Your task to perform on an android device: check storage Image 0: 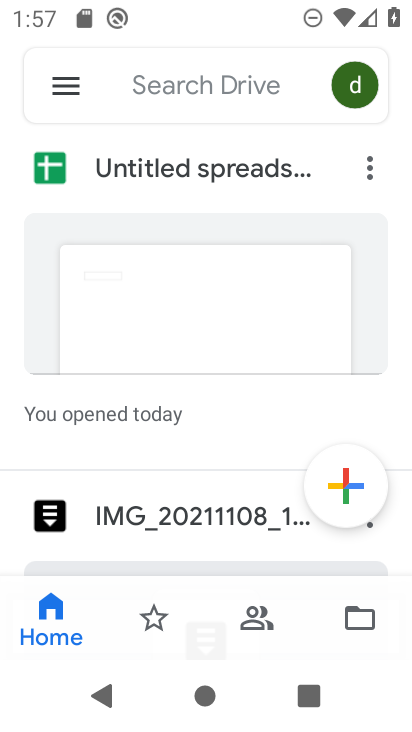
Step 0: press home button
Your task to perform on an android device: check storage Image 1: 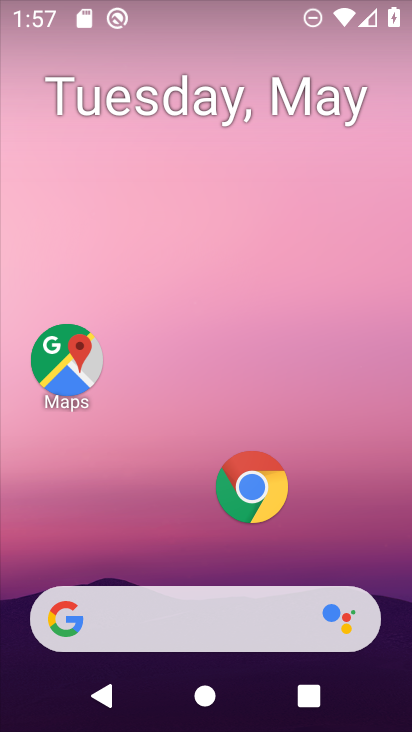
Step 1: drag from (216, 563) to (166, 69)
Your task to perform on an android device: check storage Image 2: 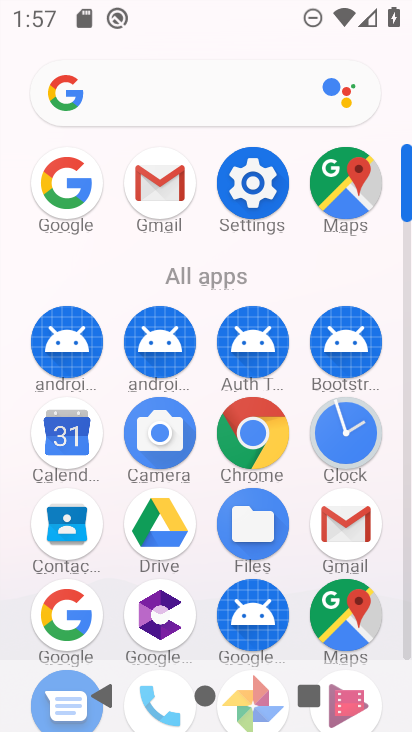
Step 2: click (245, 179)
Your task to perform on an android device: check storage Image 3: 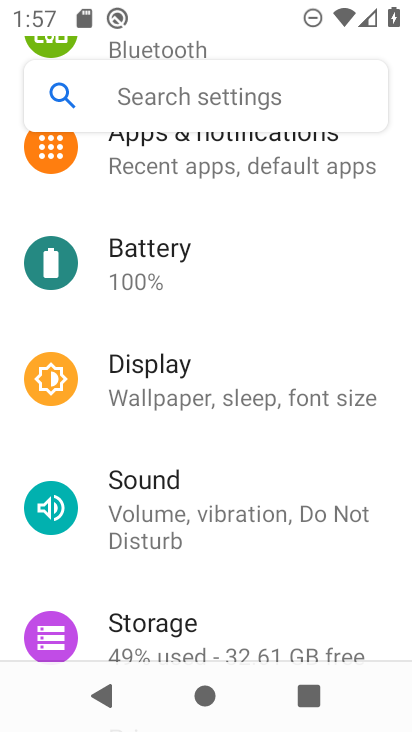
Step 3: click (164, 646)
Your task to perform on an android device: check storage Image 4: 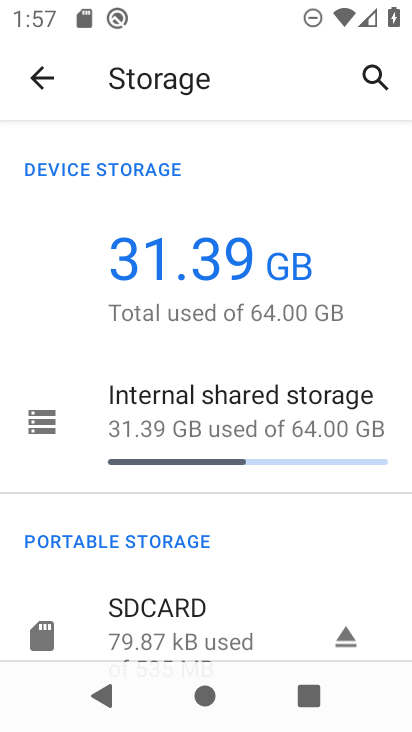
Step 4: task complete